Your task to perform on an android device: check out phone information Image 0: 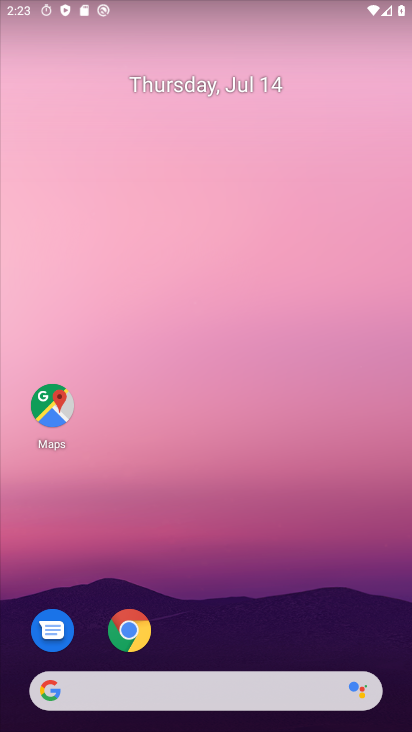
Step 0: drag from (270, 573) to (276, 63)
Your task to perform on an android device: check out phone information Image 1: 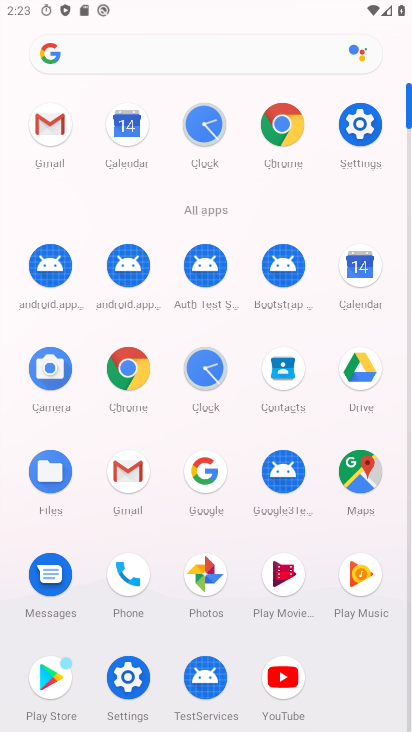
Step 1: click (358, 123)
Your task to perform on an android device: check out phone information Image 2: 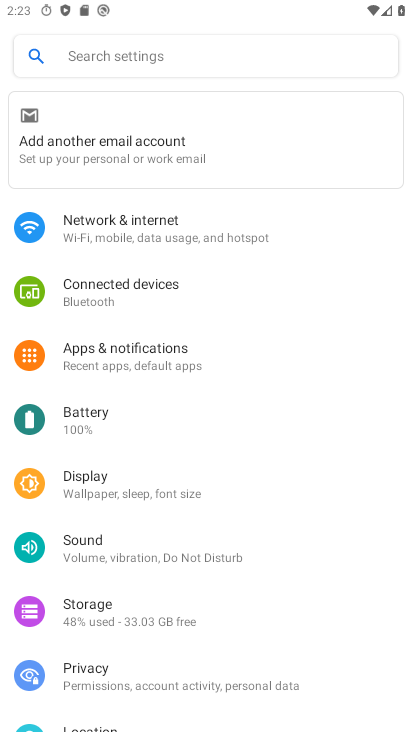
Step 2: drag from (172, 596) to (226, 257)
Your task to perform on an android device: check out phone information Image 3: 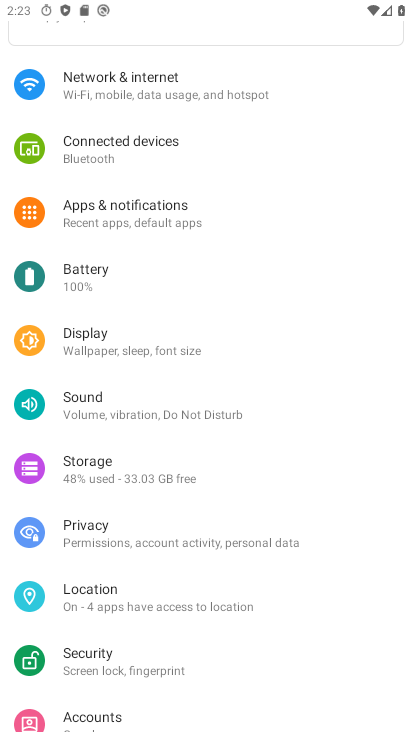
Step 3: drag from (157, 673) to (171, 236)
Your task to perform on an android device: check out phone information Image 4: 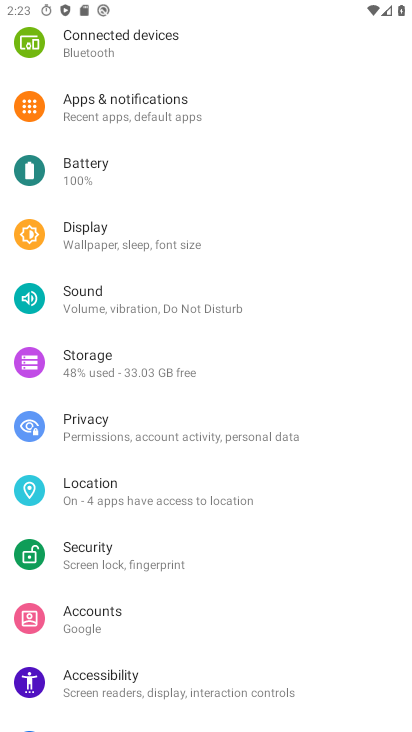
Step 4: drag from (161, 624) to (165, 309)
Your task to perform on an android device: check out phone information Image 5: 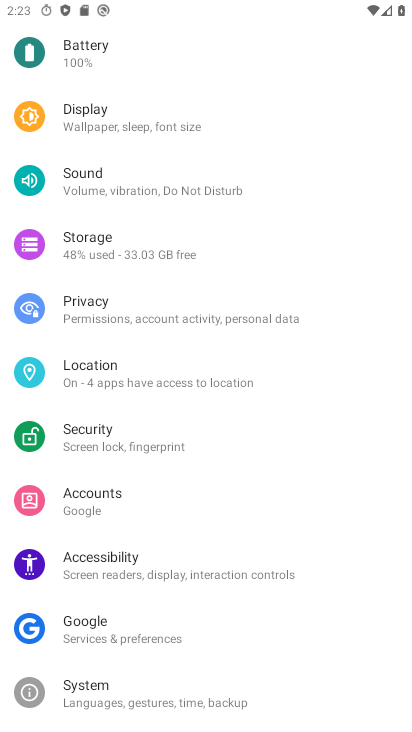
Step 5: drag from (190, 690) to (176, 328)
Your task to perform on an android device: check out phone information Image 6: 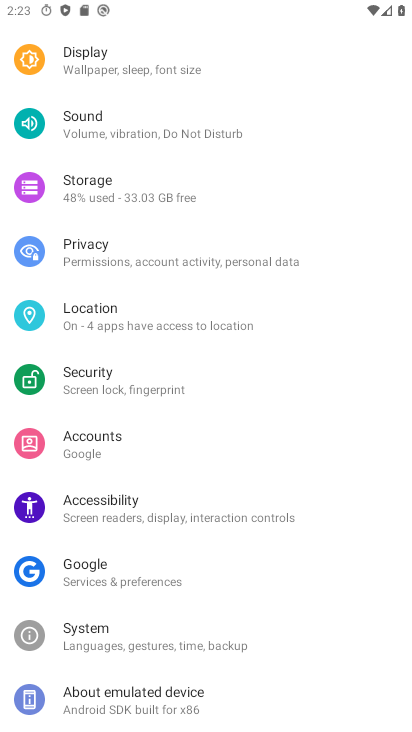
Step 6: click (127, 692)
Your task to perform on an android device: check out phone information Image 7: 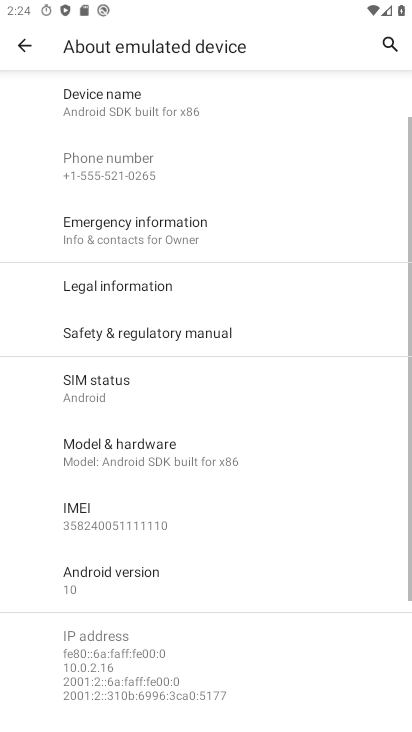
Step 7: task complete